Your task to perform on an android device: check out phone information Image 0: 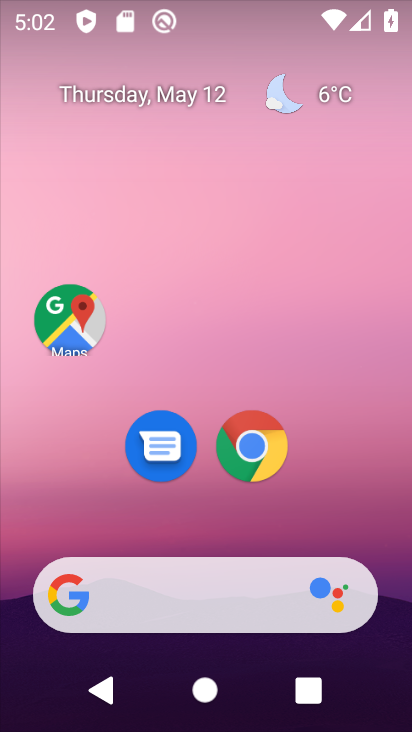
Step 0: drag from (259, 504) to (245, 85)
Your task to perform on an android device: check out phone information Image 1: 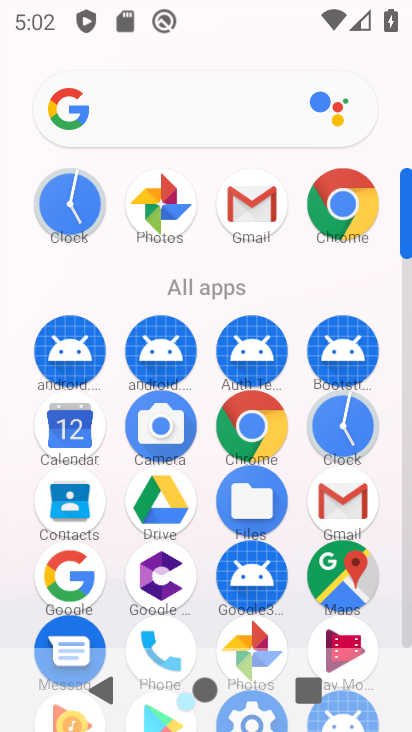
Step 1: drag from (222, 259) to (220, 85)
Your task to perform on an android device: check out phone information Image 2: 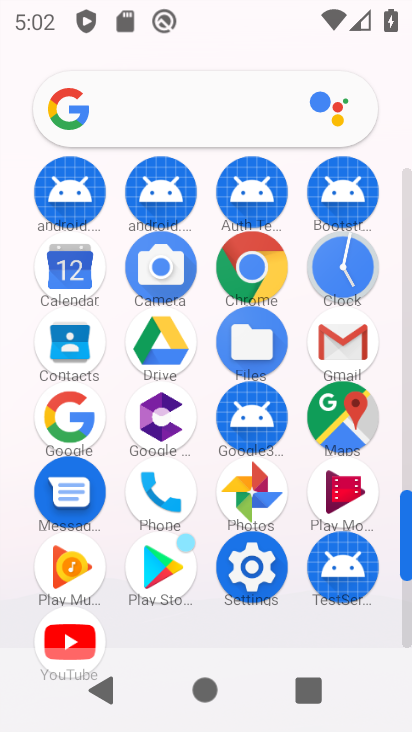
Step 2: click (170, 503)
Your task to perform on an android device: check out phone information Image 3: 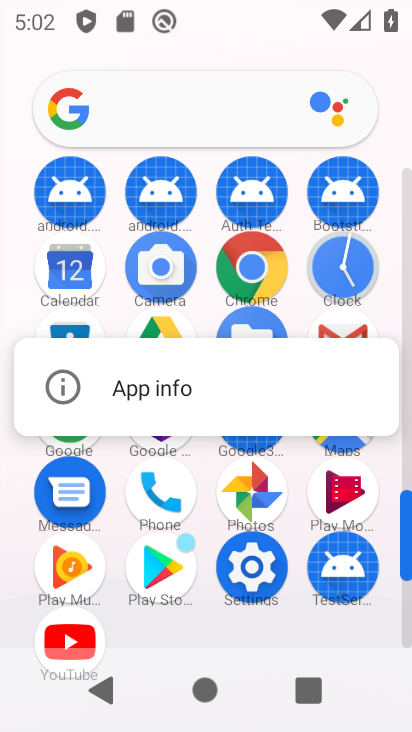
Step 3: click (137, 390)
Your task to perform on an android device: check out phone information Image 4: 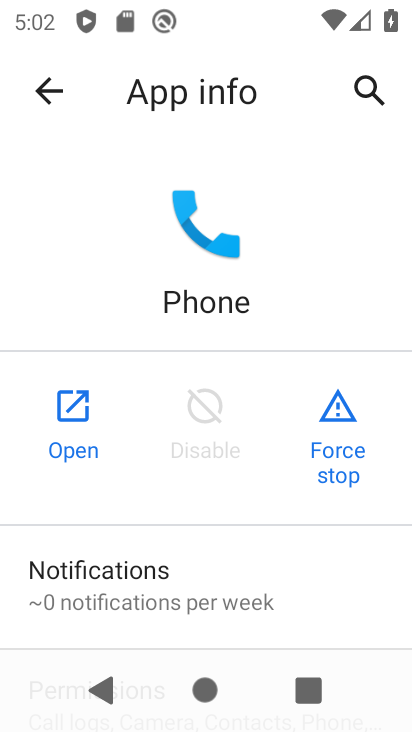
Step 4: task complete